Your task to perform on an android device: Open CNN.com Image 0: 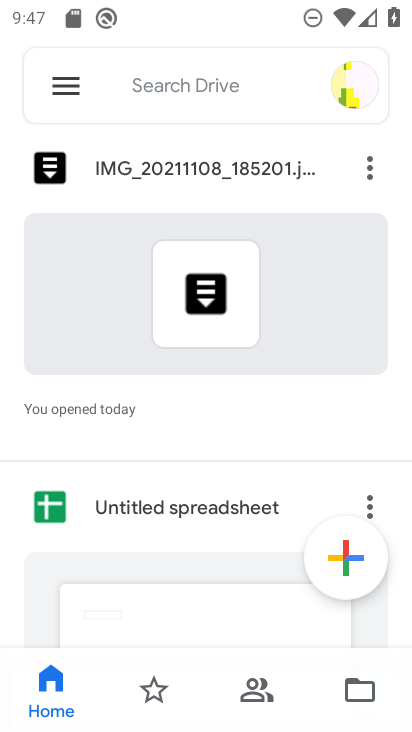
Step 0: press home button
Your task to perform on an android device: Open CNN.com Image 1: 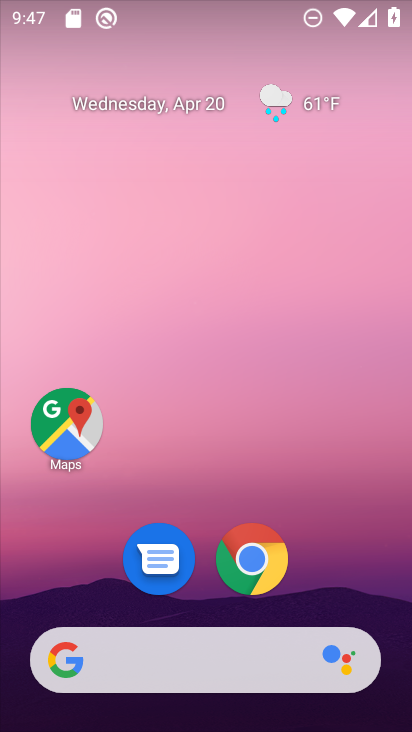
Step 1: click (251, 565)
Your task to perform on an android device: Open CNN.com Image 2: 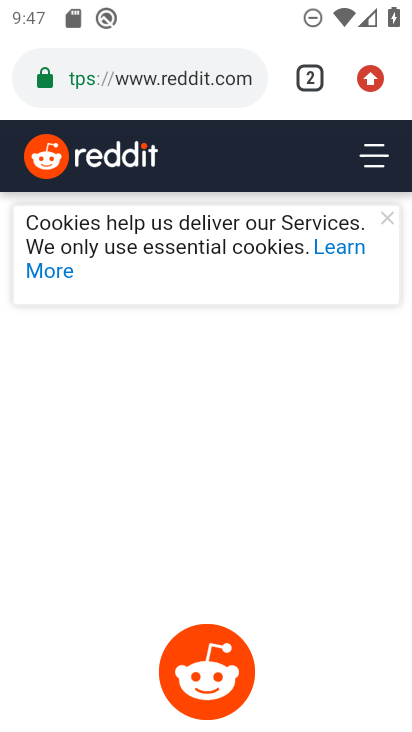
Step 2: click (167, 77)
Your task to perform on an android device: Open CNN.com Image 3: 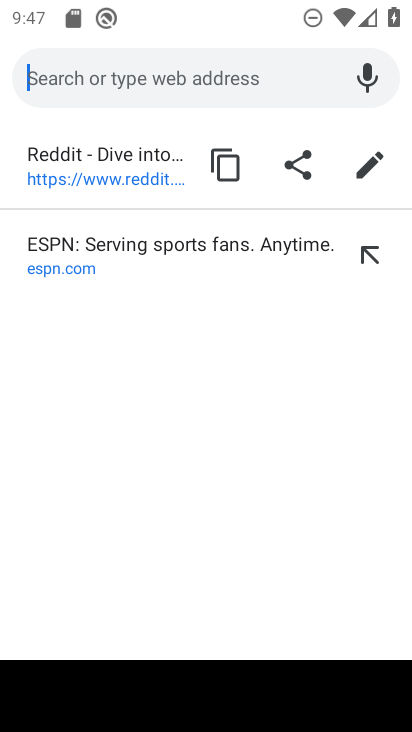
Step 3: type "cnn.com"
Your task to perform on an android device: Open CNN.com Image 4: 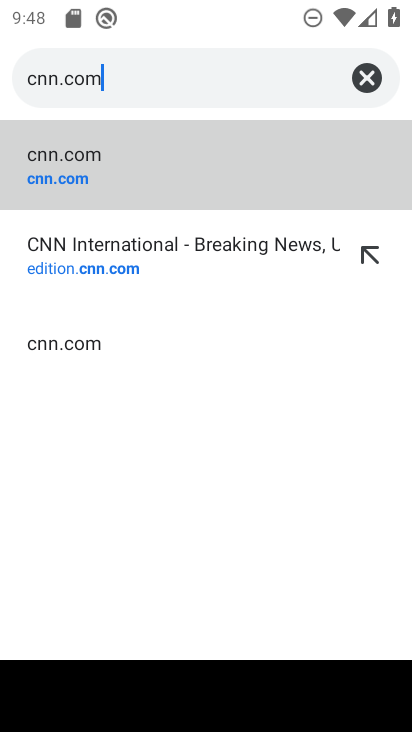
Step 4: click (87, 162)
Your task to perform on an android device: Open CNN.com Image 5: 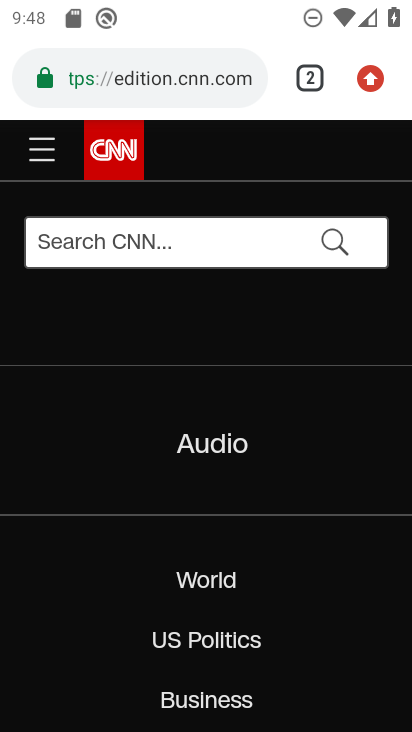
Step 5: task complete